Your task to perform on an android device: Open calendar and show me the first week of next month Image 0: 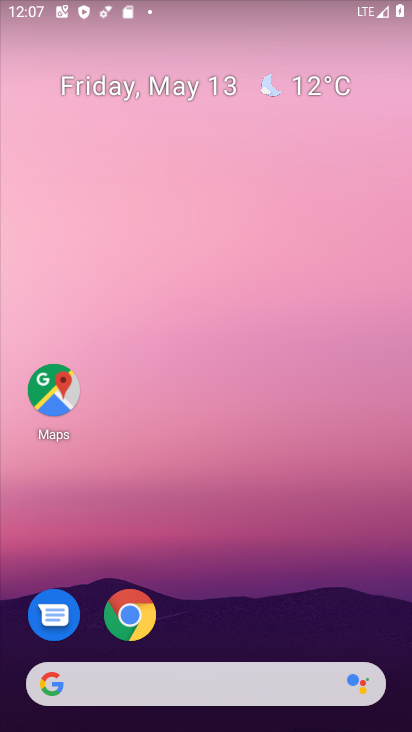
Step 0: drag from (205, 576) to (192, 228)
Your task to perform on an android device: Open calendar and show me the first week of next month Image 1: 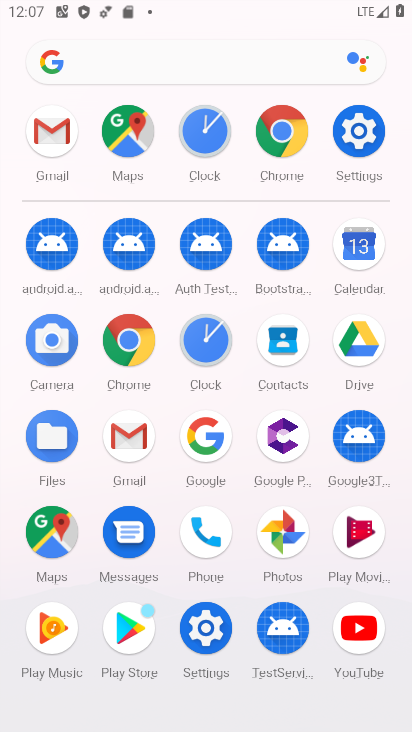
Step 1: click (380, 241)
Your task to perform on an android device: Open calendar and show me the first week of next month Image 2: 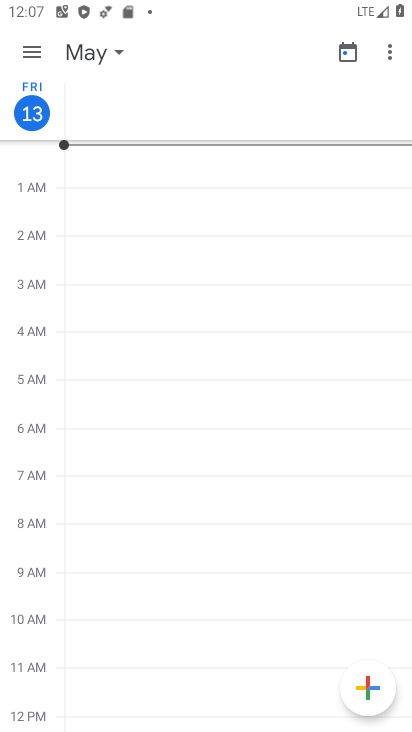
Step 2: click (94, 53)
Your task to perform on an android device: Open calendar and show me the first week of next month Image 3: 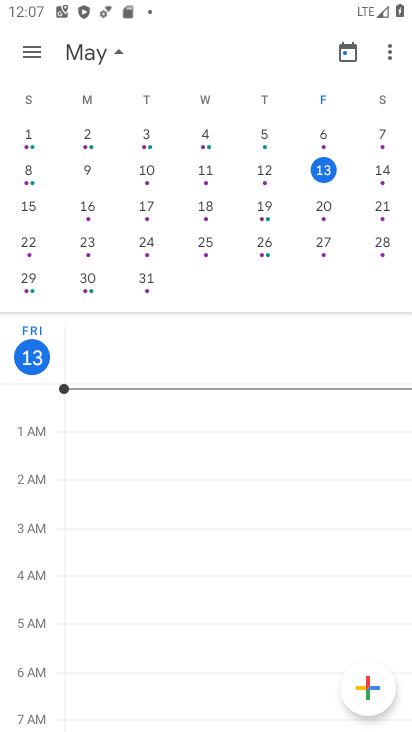
Step 3: drag from (361, 209) to (2, 155)
Your task to perform on an android device: Open calendar and show me the first week of next month Image 4: 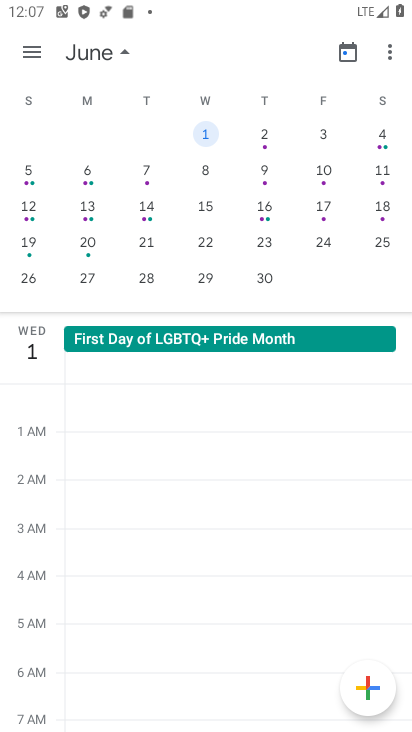
Step 4: click (200, 138)
Your task to perform on an android device: Open calendar and show me the first week of next month Image 5: 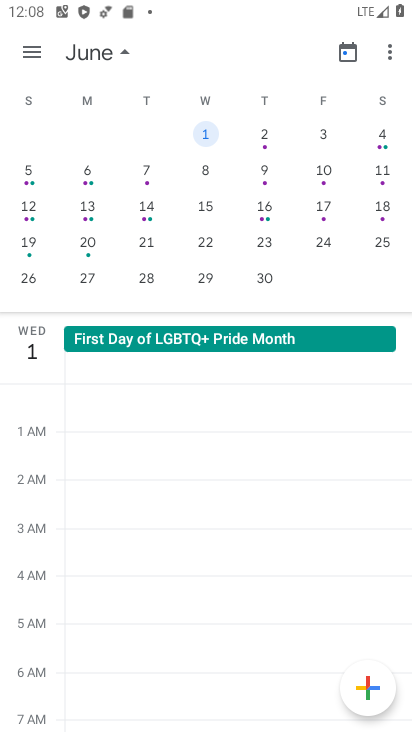
Step 5: task complete